Your task to perform on an android device: change the upload size in google photos Image 0: 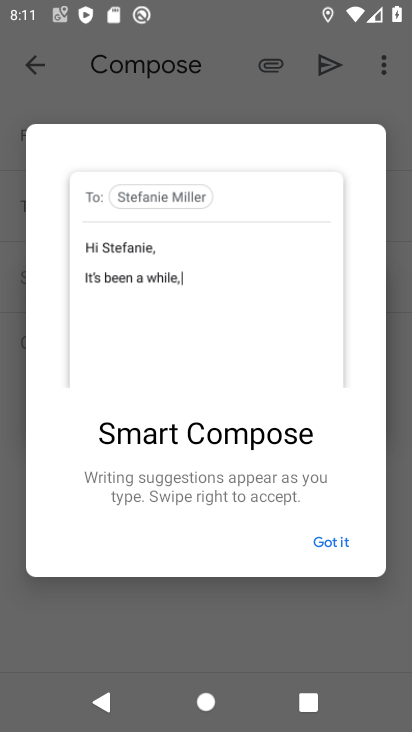
Step 0: press home button
Your task to perform on an android device: change the upload size in google photos Image 1: 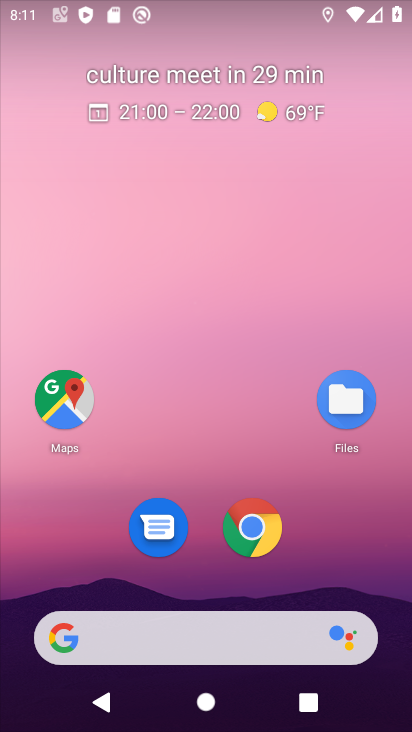
Step 1: drag from (199, 590) to (200, 69)
Your task to perform on an android device: change the upload size in google photos Image 2: 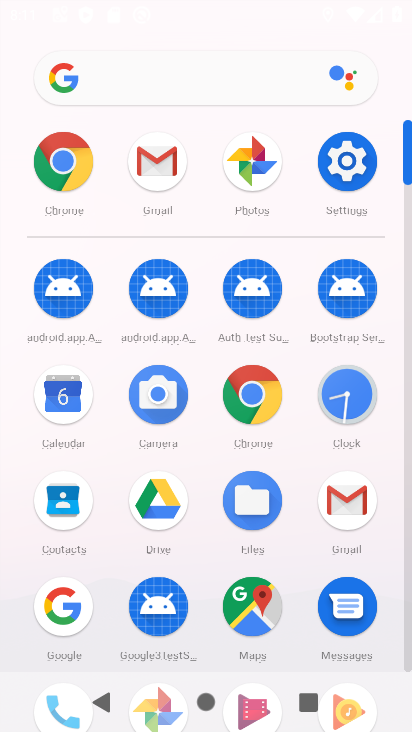
Step 2: drag from (191, 617) to (180, 276)
Your task to perform on an android device: change the upload size in google photos Image 3: 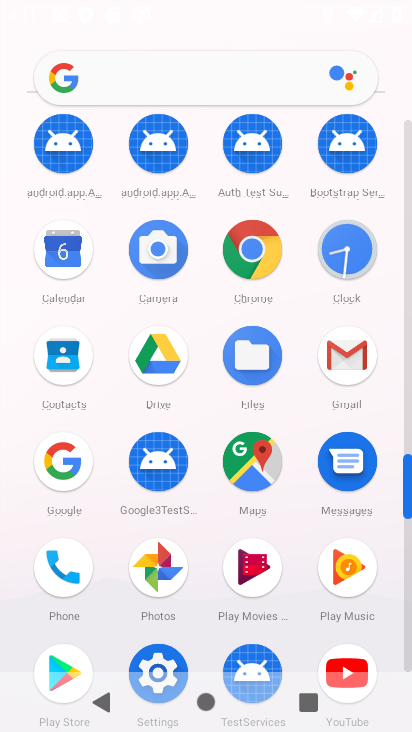
Step 3: click (163, 568)
Your task to perform on an android device: change the upload size in google photos Image 4: 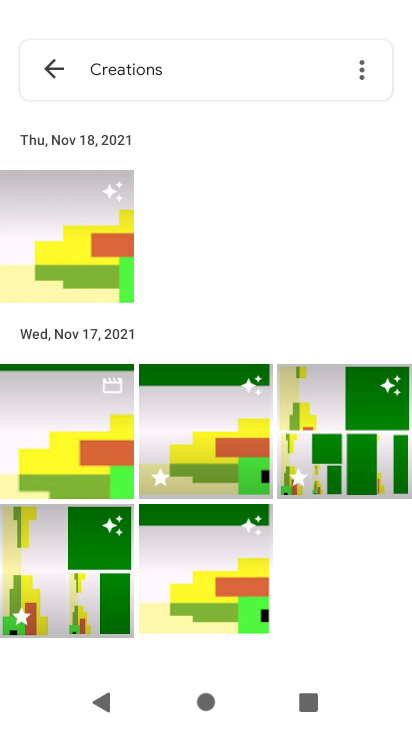
Step 4: press back button
Your task to perform on an android device: change the upload size in google photos Image 5: 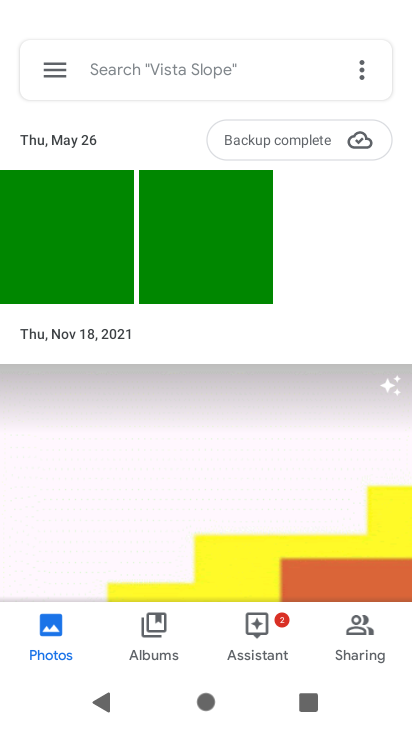
Step 5: click (49, 67)
Your task to perform on an android device: change the upload size in google photos Image 6: 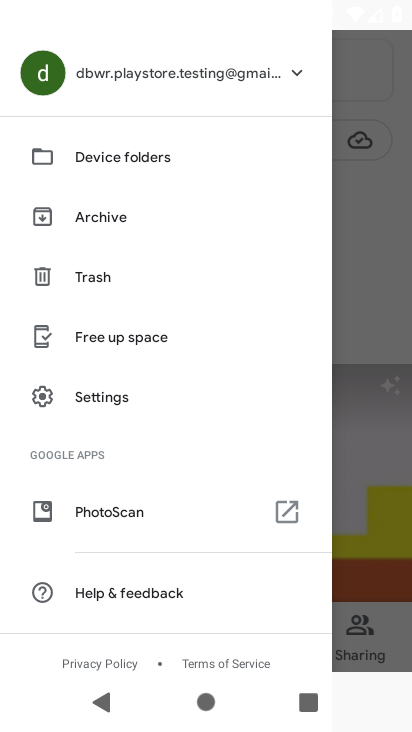
Step 6: click (81, 419)
Your task to perform on an android device: change the upload size in google photos Image 7: 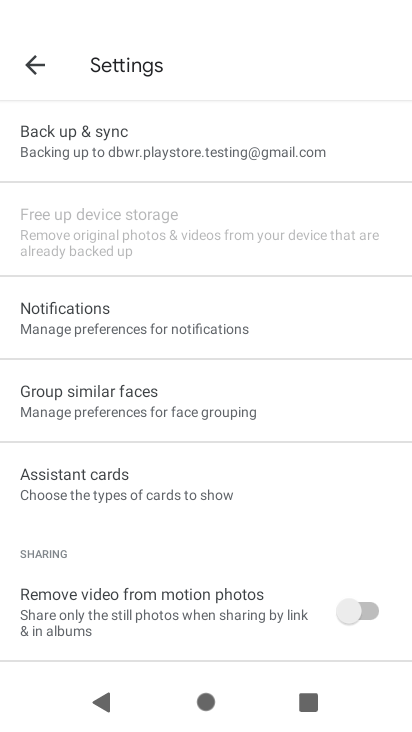
Step 7: drag from (133, 171) to (164, 415)
Your task to perform on an android device: change the upload size in google photos Image 8: 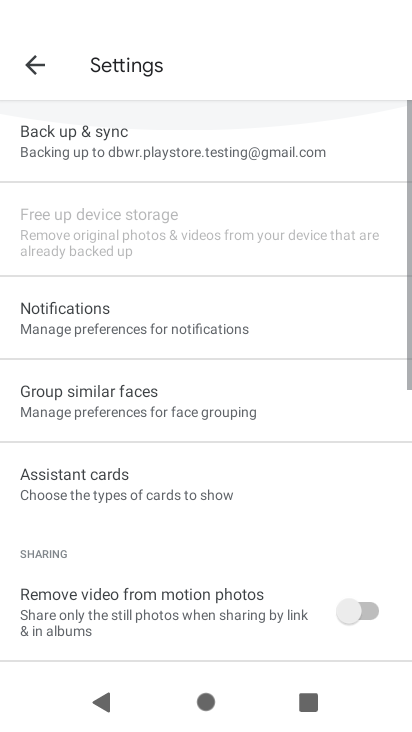
Step 8: drag from (165, 486) to (174, 67)
Your task to perform on an android device: change the upload size in google photos Image 9: 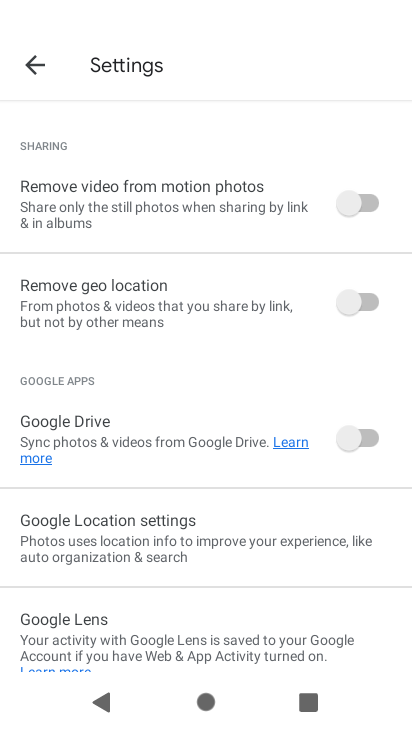
Step 9: drag from (187, 118) to (242, 550)
Your task to perform on an android device: change the upload size in google photos Image 10: 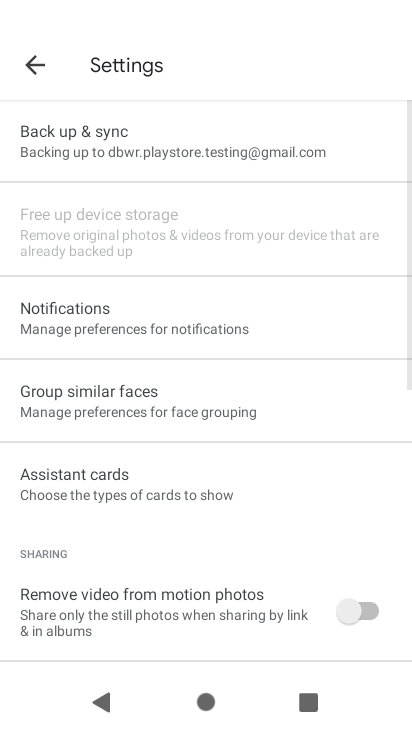
Step 10: drag from (142, 160) to (165, 324)
Your task to perform on an android device: change the upload size in google photos Image 11: 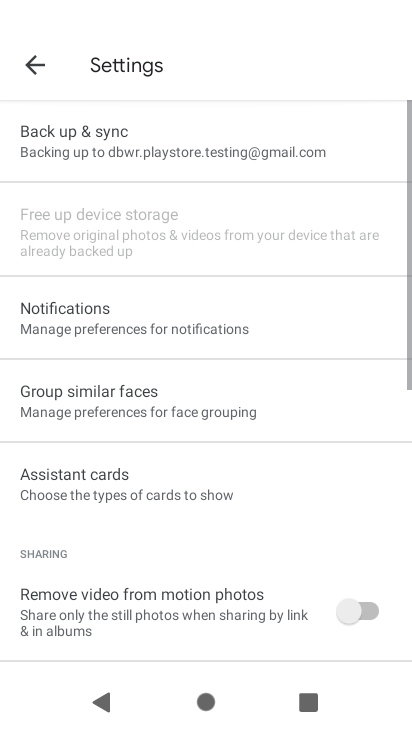
Step 11: click (116, 125)
Your task to perform on an android device: change the upload size in google photos Image 12: 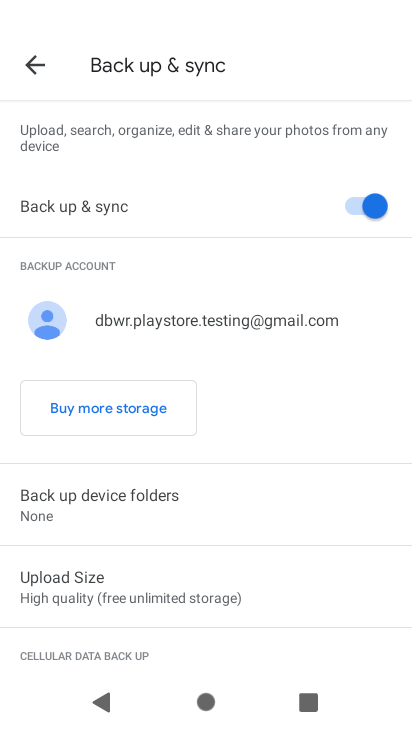
Step 12: click (128, 576)
Your task to perform on an android device: change the upload size in google photos Image 13: 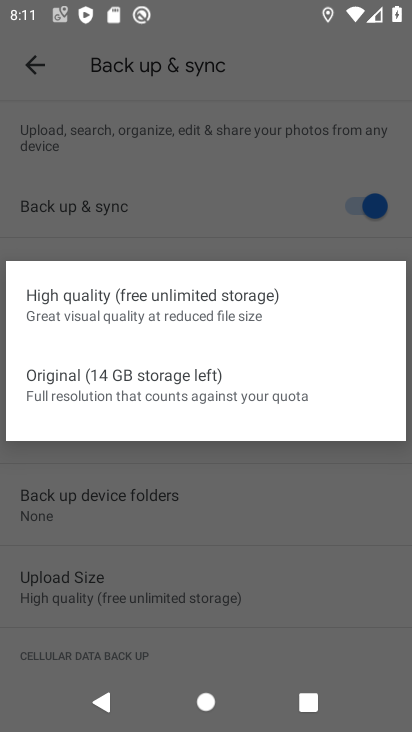
Step 13: click (116, 382)
Your task to perform on an android device: change the upload size in google photos Image 14: 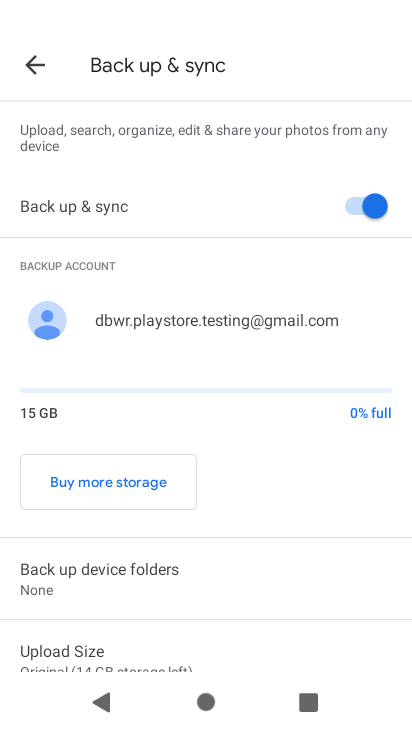
Step 14: task complete